Your task to perform on an android device: remove spam from my inbox in the gmail app Image 0: 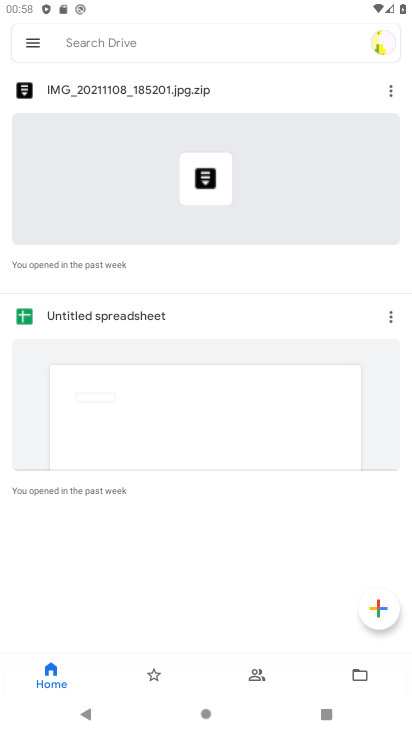
Step 0: press home button
Your task to perform on an android device: remove spam from my inbox in the gmail app Image 1: 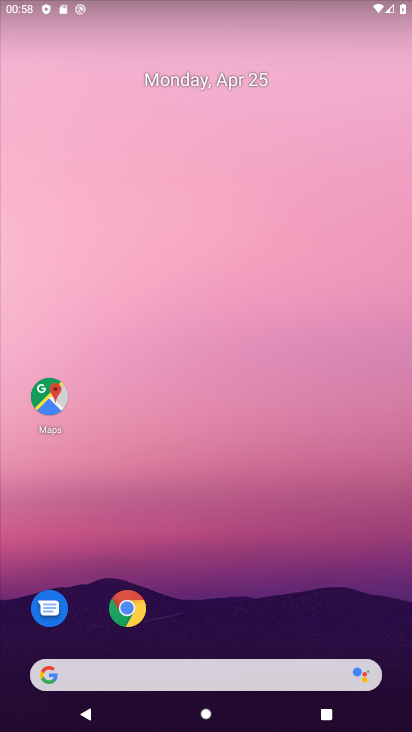
Step 1: drag from (218, 572) to (222, 222)
Your task to perform on an android device: remove spam from my inbox in the gmail app Image 2: 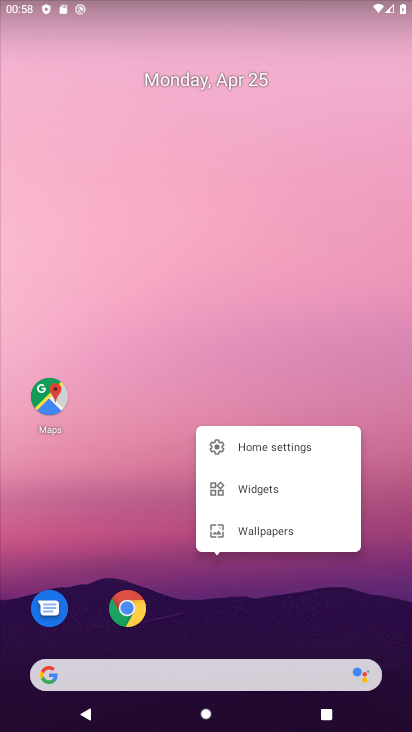
Step 2: click (149, 345)
Your task to perform on an android device: remove spam from my inbox in the gmail app Image 3: 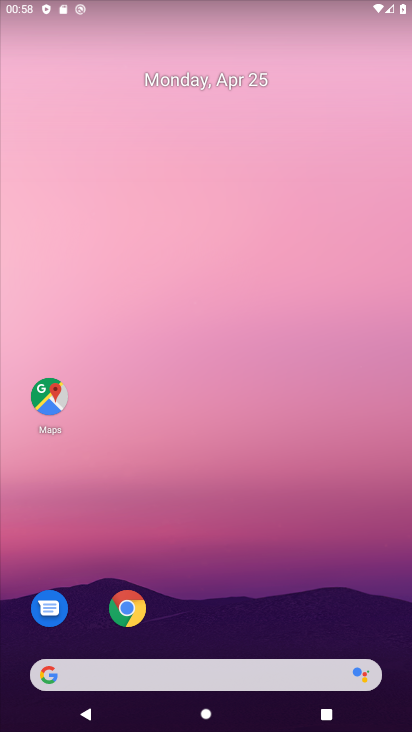
Step 3: drag from (224, 604) to (224, 117)
Your task to perform on an android device: remove spam from my inbox in the gmail app Image 4: 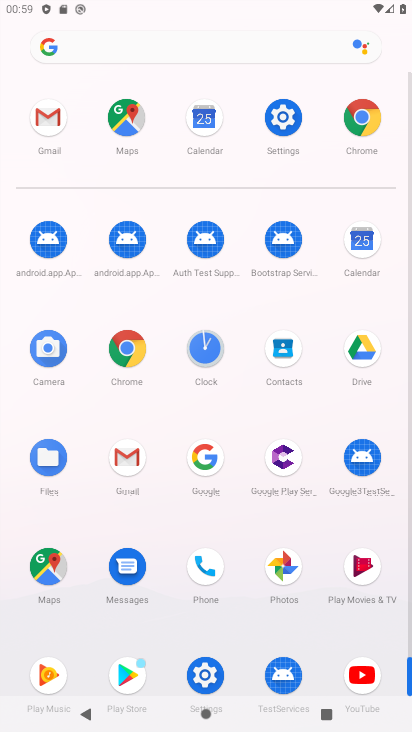
Step 4: click (38, 109)
Your task to perform on an android device: remove spam from my inbox in the gmail app Image 5: 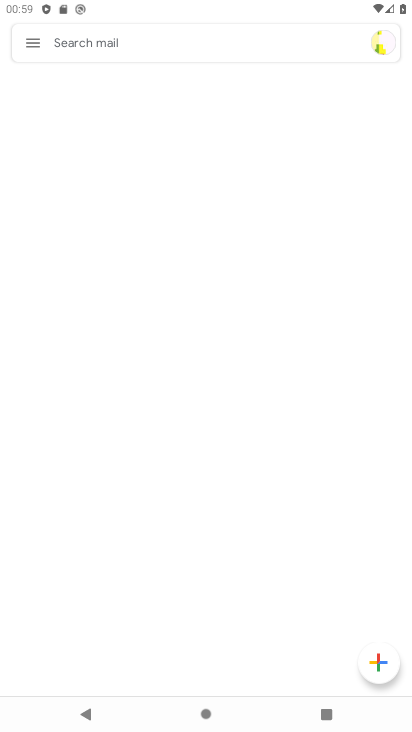
Step 5: click (32, 57)
Your task to perform on an android device: remove spam from my inbox in the gmail app Image 6: 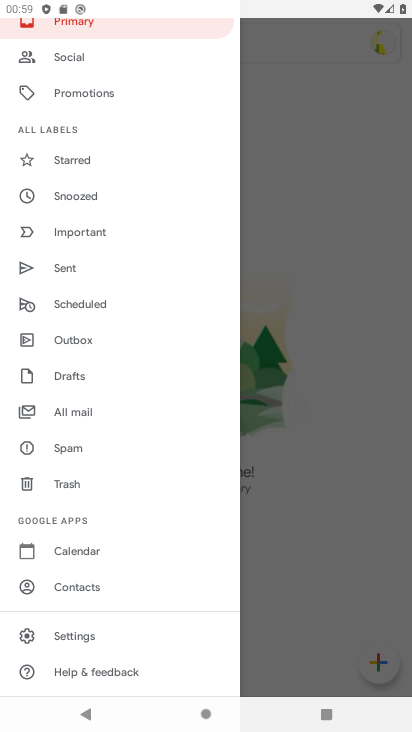
Step 6: click (85, 451)
Your task to perform on an android device: remove spam from my inbox in the gmail app Image 7: 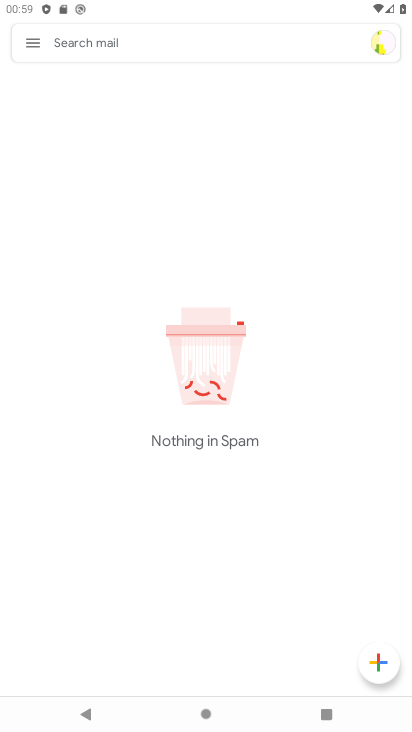
Step 7: task complete